Your task to perform on an android device: set the timer Image 0: 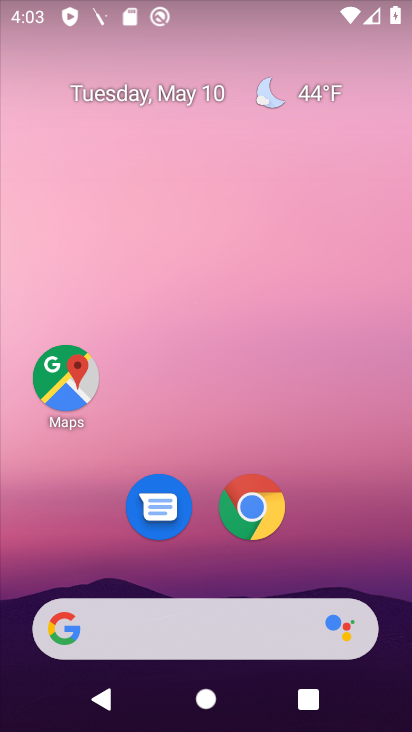
Step 0: drag from (245, 598) to (369, 72)
Your task to perform on an android device: set the timer Image 1: 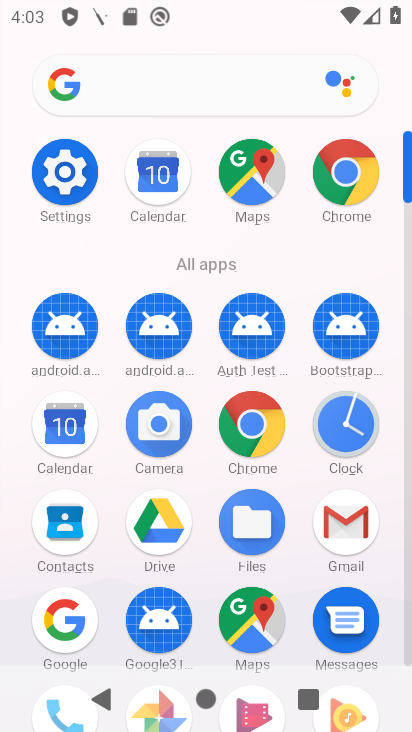
Step 1: click (337, 411)
Your task to perform on an android device: set the timer Image 2: 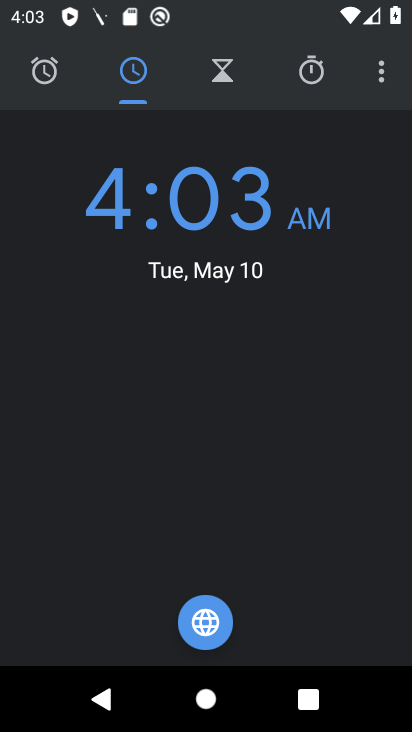
Step 2: click (383, 59)
Your task to perform on an android device: set the timer Image 3: 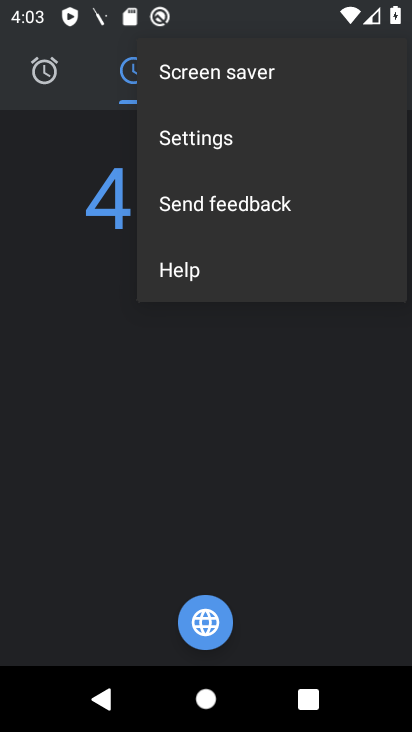
Step 3: click (219, 143)
Your task to perform on an android device: set the timer Image 4: 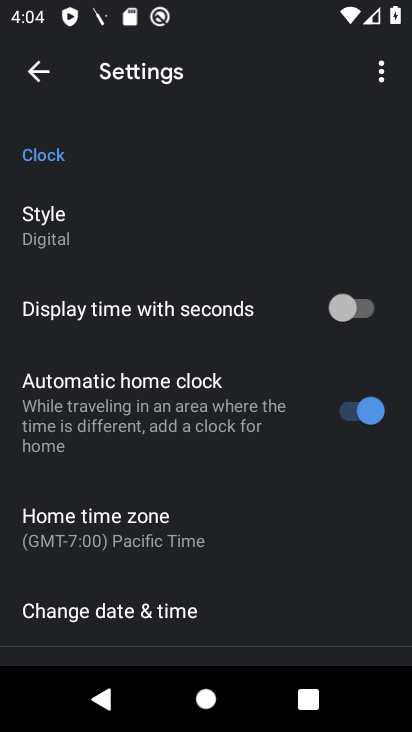
Step 4: drag from (217, 338) to (266, 128)
Your task to perform on an android device: set the timer Image 5: 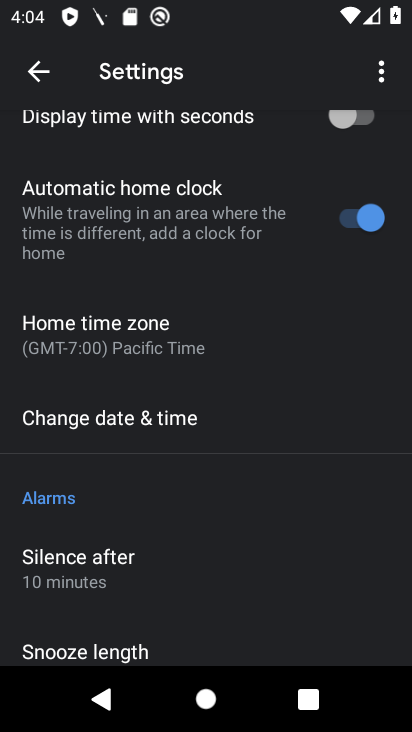
Step 5: drag from (175, 530) to (249, 280)
Your task to perform on an android device: set the timer Image 6: 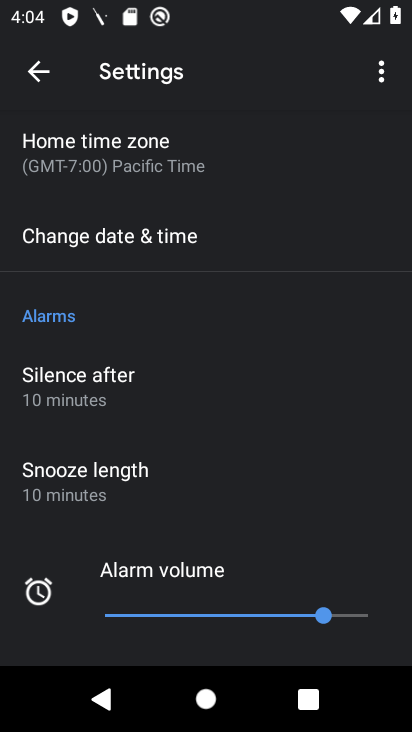
Step 6: click (211, 565)
Your task to perform on an android device: set the timer Image 7: 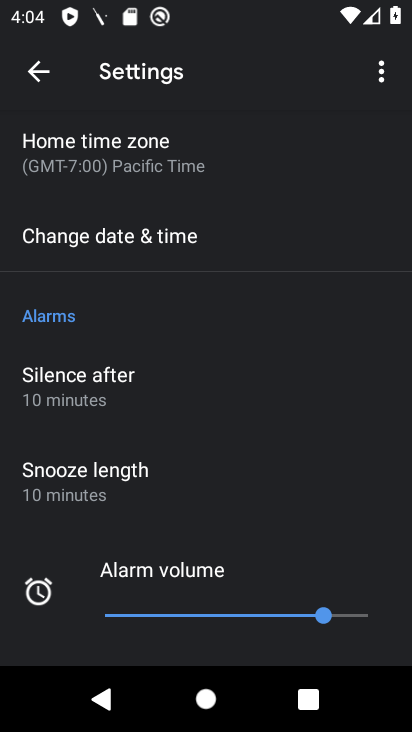
Step 7: drag from (189, 530) to (335, 56)
Your task to perform on an android device: set the timer Image 8: 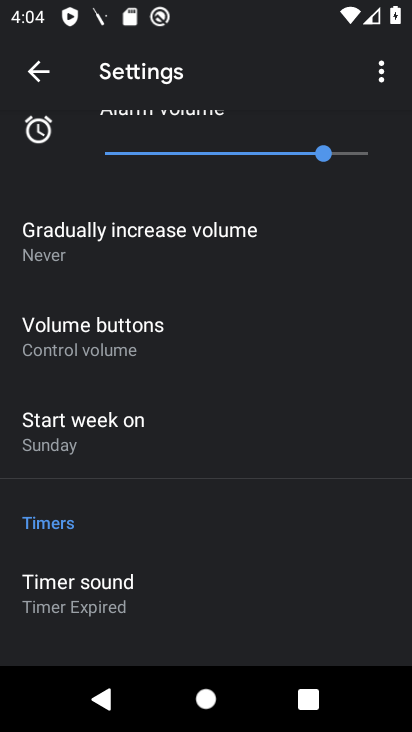
Step 8: click (133, 586)
Your task to perform on an android device: set the timer Image 9: 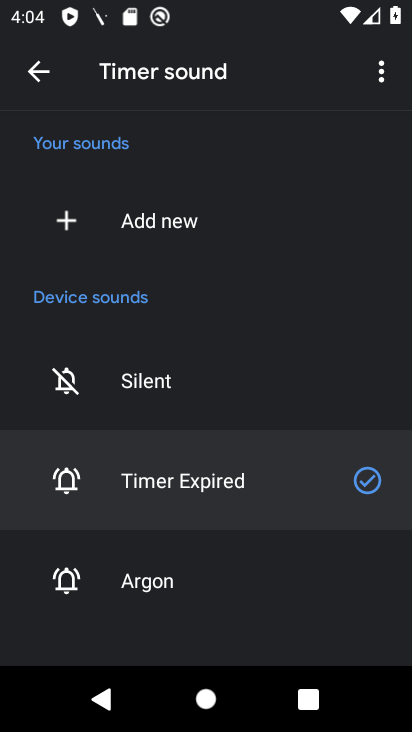
Step 9: click (157, 588)
Your task to perform on an android device: set the timer Image 10: 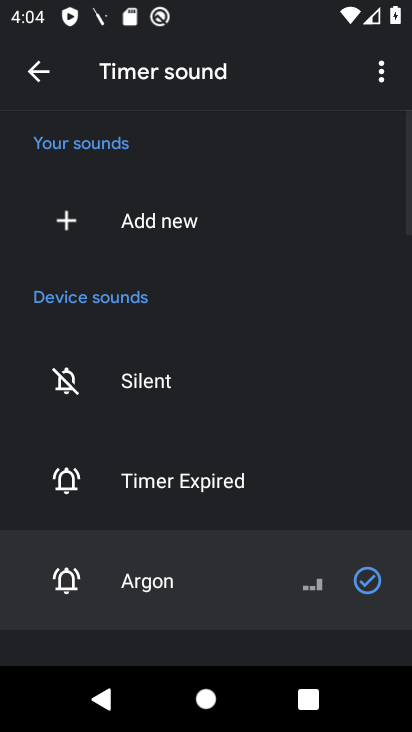
Step 10: task complete